Your task to perform on an android device: Clear the shopping cart on ebay.com. Add "razer blackwidow" to the cart on ebay.com Image 0: 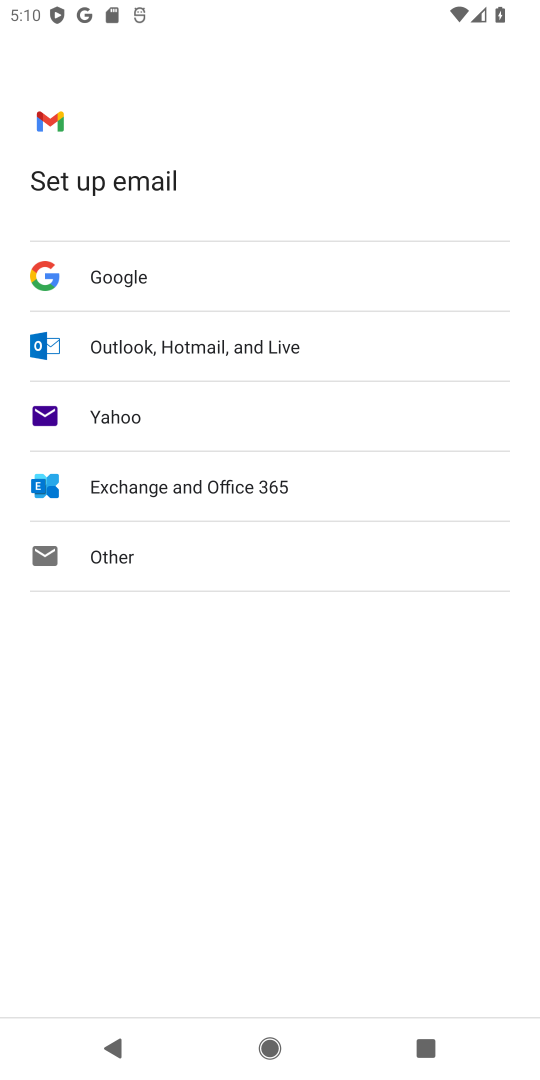
Step 0: press home button
Your task to perform on an android device: Clear the shopping cart on ebay.com. Add "razer blackwidow" to the cart on ebay.com Image 1: 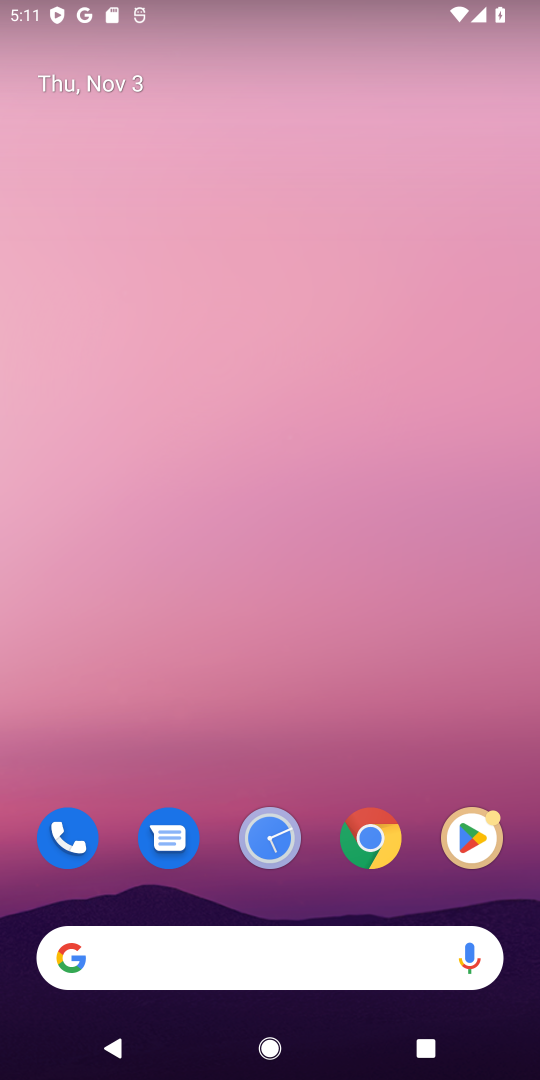
Step 1: click (213, 950)
Your task to perform on an android device: Clear the shopping cart on ebay.com. Add "razer blackwidow" to the cart on ebay.com Image 2: 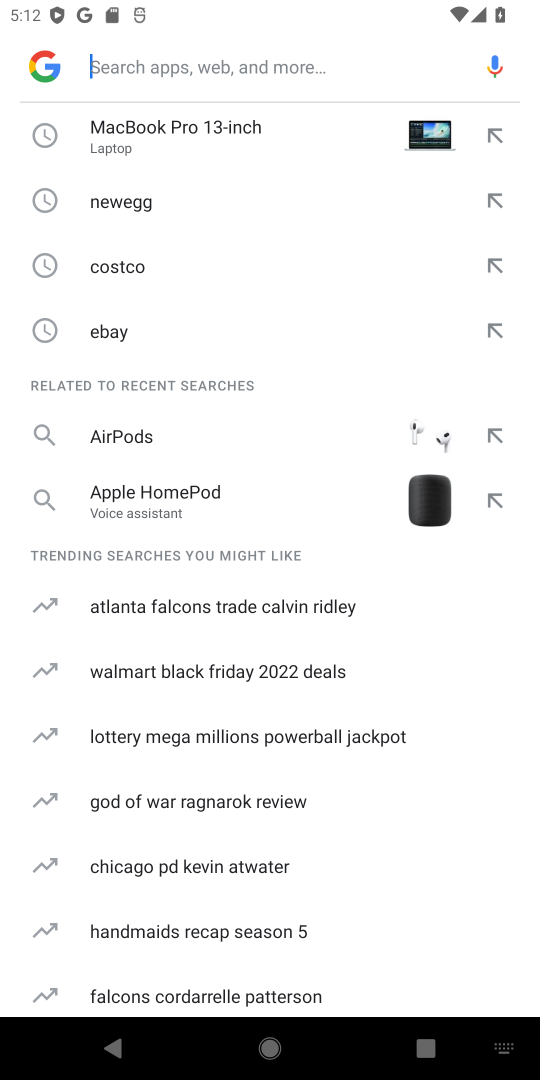
Step 2: type "ebay.com"
Your task to perform on an android device: Clear the shopping cart on ebay.com. Add "razer blackwidow" to the cart on ebay.com Image 3: 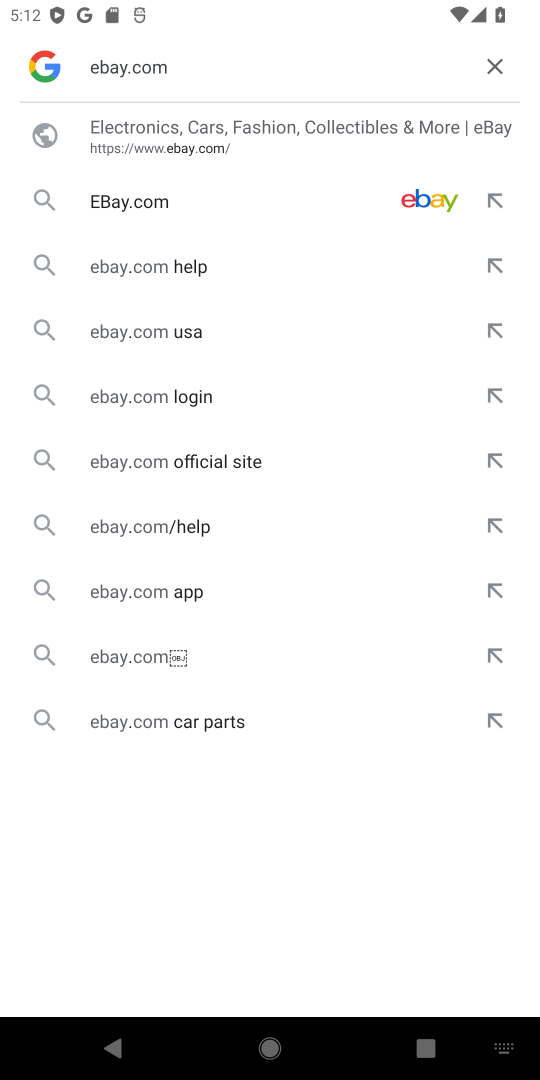
Step 3: click (300, 198)
Your task to perform on an android device: Clear the shopping cart on ebay.com. Add "razer blackwidow" to the cart on ebay.com Image 4: 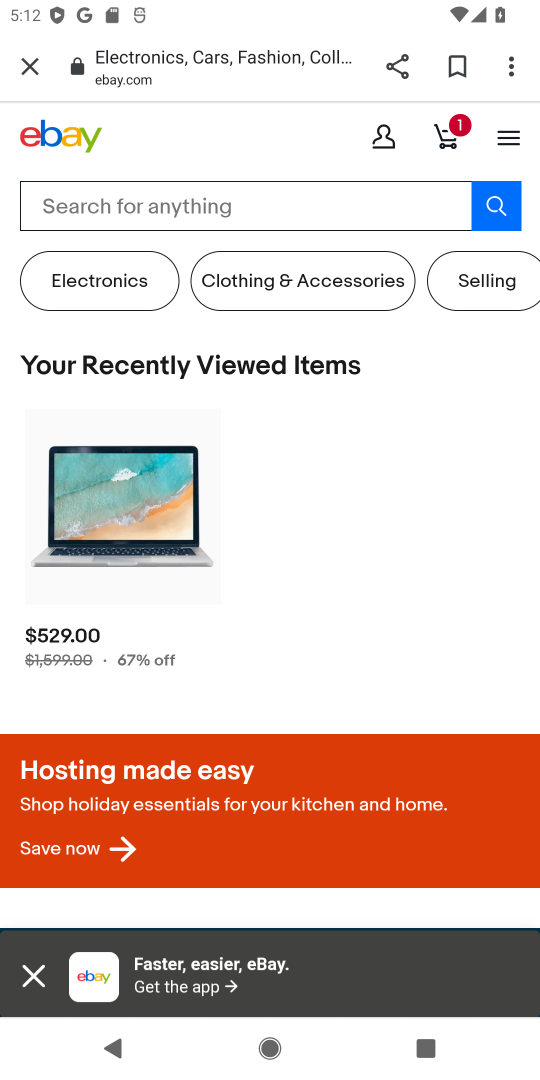
Step 4: drag from (255, 856) to (279, 538)
Your task to perform on an android device: Clear the shopping cart on ebay.com. Add "razer blackwidow" to the cart on ebay.com Image 5: 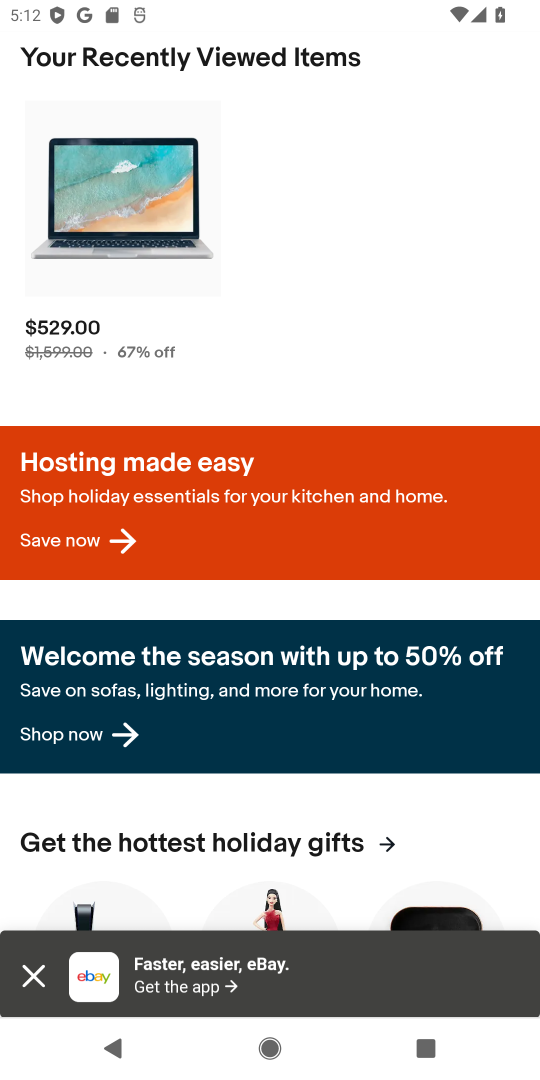
Step 5: drag from (367, 365) to (268, 864)
Your task to perform on an android device: Clear the shopping cart on ebay.com. Add "razer blackwidow" to the cart on ebay.com Image 6: 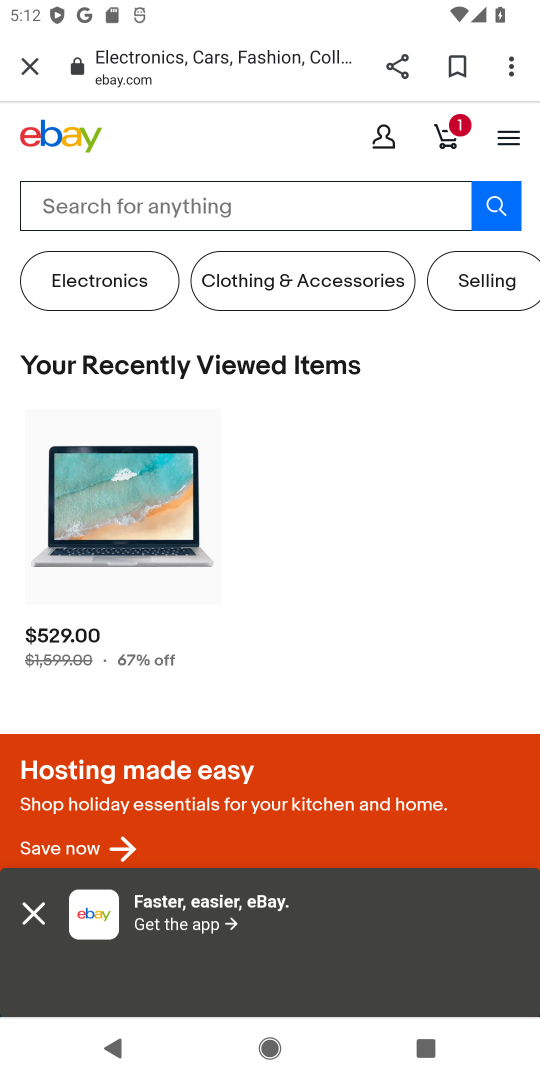
Step 6: click (34, 909)
Your task to perform on an android device: Clear the shopping cart on ebay.com. Add "razer blackwidow" to the cart on ebay.com Image 7: 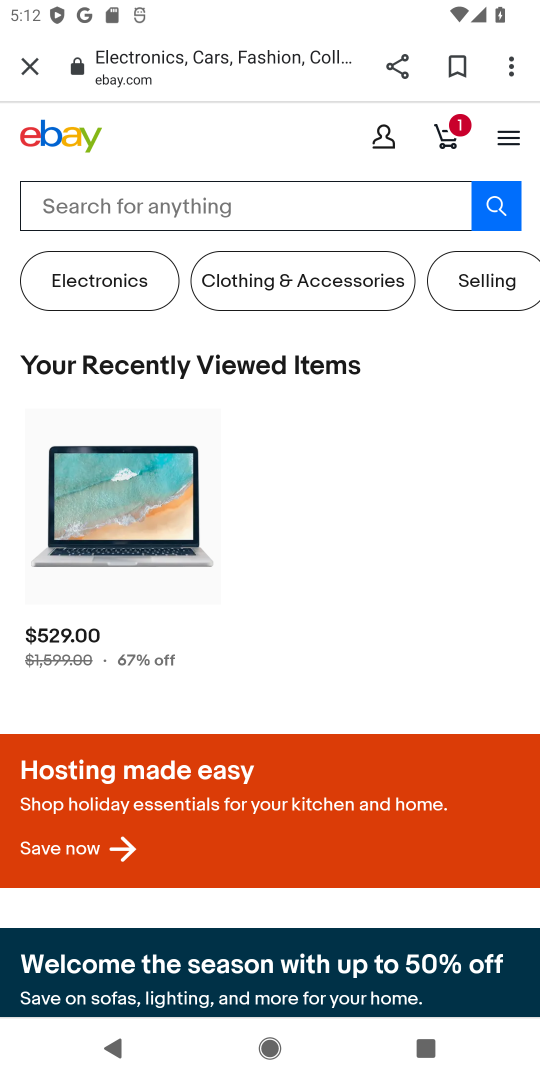
Step 7: drag from (120, 870) to (228, 453)
Your task to perform on an android device: Clear the shopping cart on ebay.com. Add "razer blackwidow" to the cart on ebay.com Image 8: 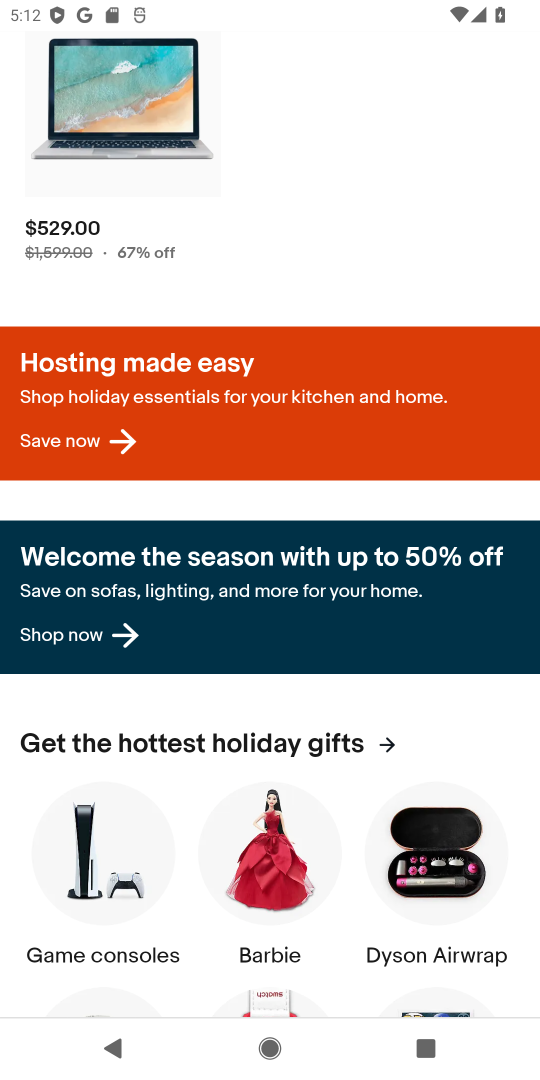
Step 8: click (105, 160)
Your task to perform on an android device: Clear the shopping cart on ebay.com. Add "razer blackwidow" to the cart on ebay.com Image 9: 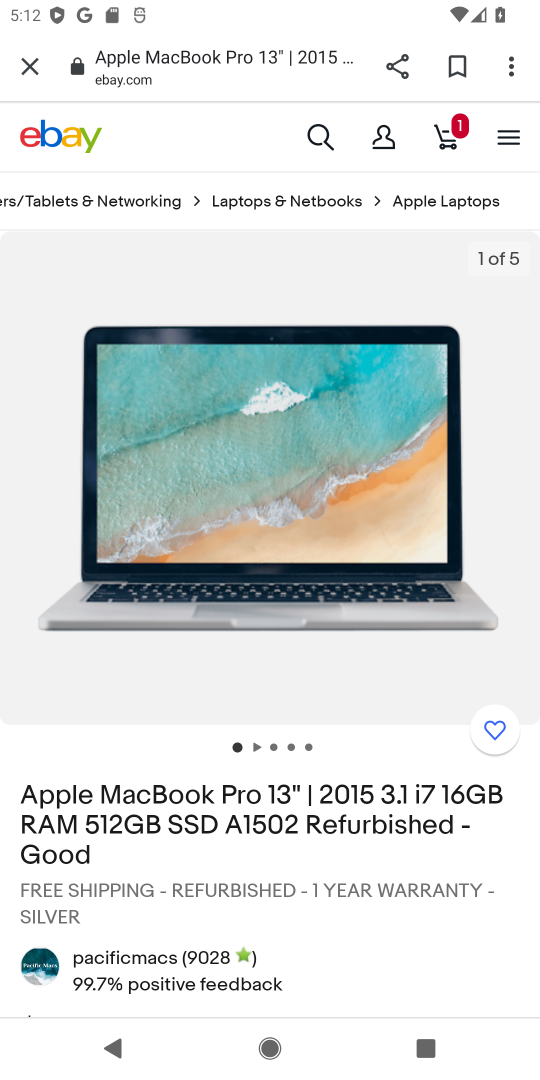
Step 9: drag from (125, 813) to (183, 606)
Your task to perform on an android device: Clear the shopping cart on ebay.com. Add "razer blackwidow" to the cart on ebay.com Image 10: 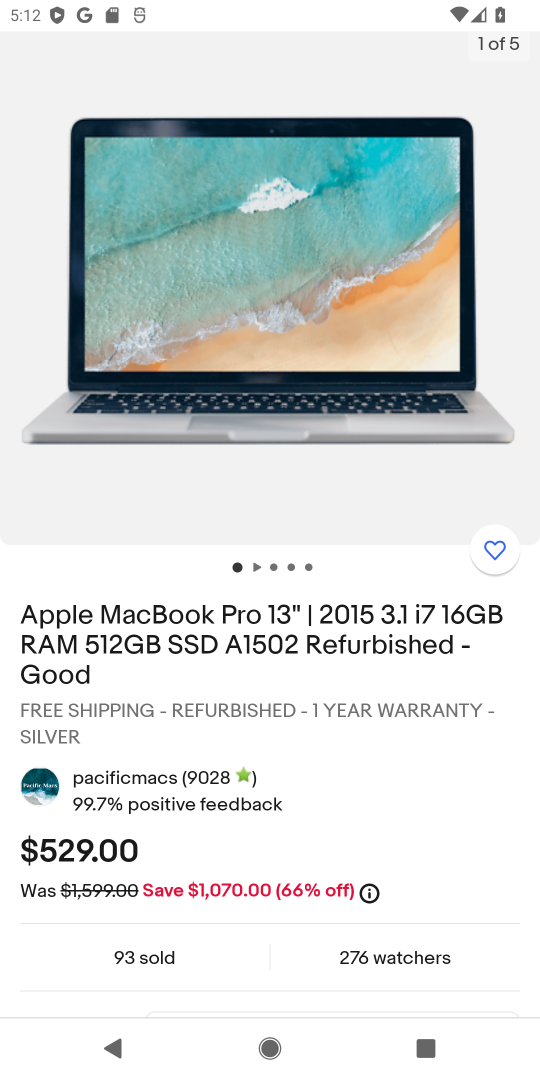
Step 10: drag from (191, 854) to (258, 618)
Your task to perform on an android device: Clear the shopping cart on ebay.com. Add "razer blackwidow" to the cart on ebay.com Image 11: 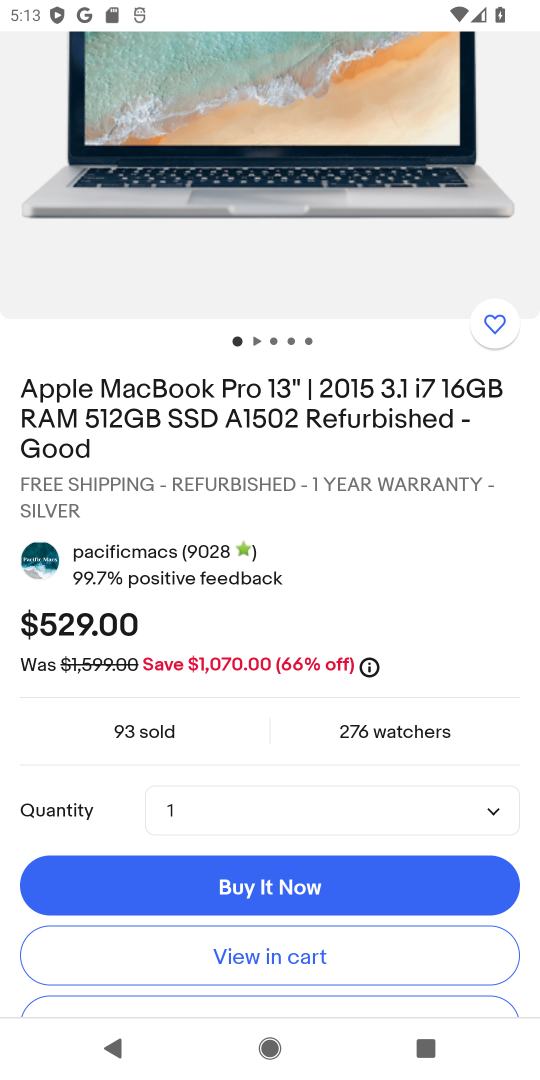
Step 11: click (230, 944)
Your task to perform on an android device: Clear the shopping cart on ebay.com. Add "razer blackwidow" to the cart on ebay.com Image 12: 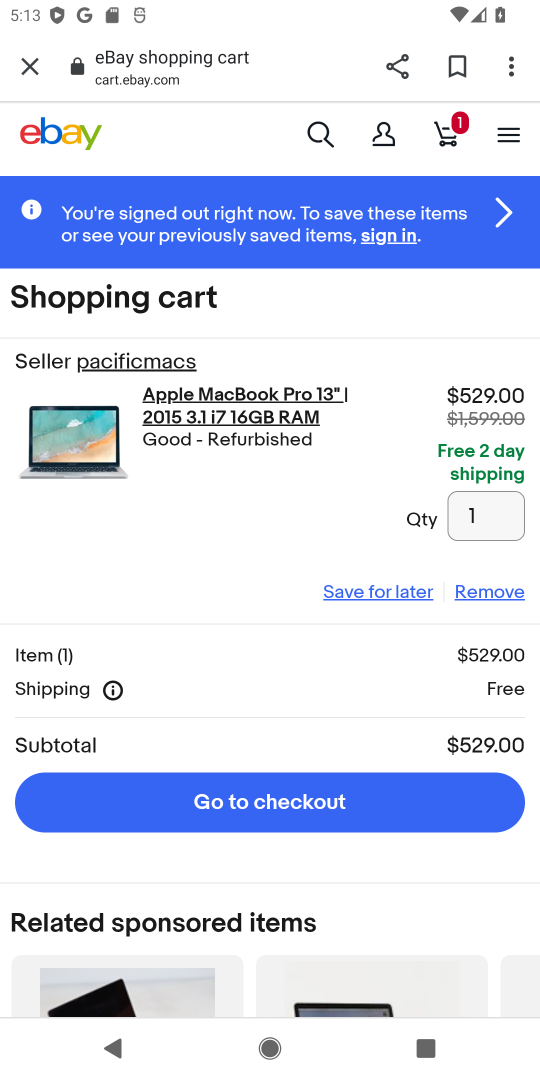
Step 12: task complete